Your task to perform on an android device: Go to battery settings Image 0: 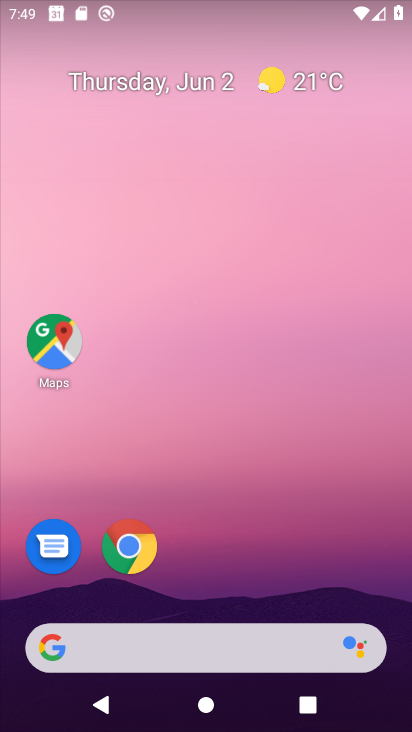
Step 0: drag from (353, 505) to (336, 216)
Your task to perform on an android device: Go to battery settings Image 1: 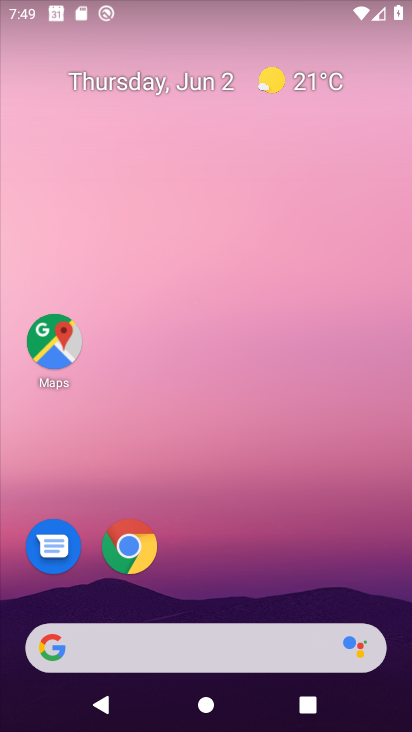
Step 1: drag from (346, 590) to (323, 82)
Your task to perform on an android device: Go to battery settings Image 2: 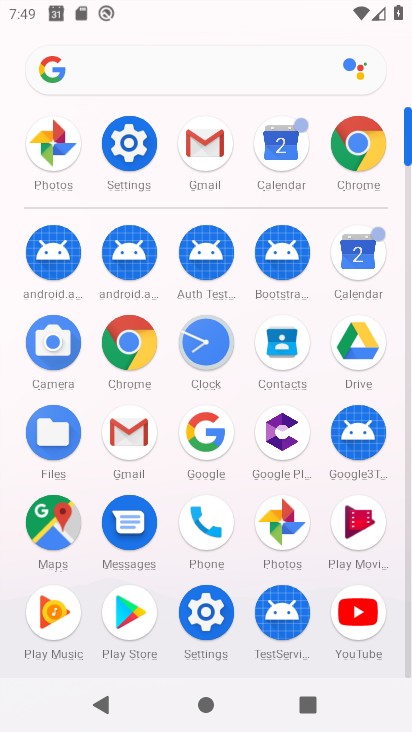
Step 2: click (200, 599)
Your task to perform on an android device: Go to battery settings Image 3: 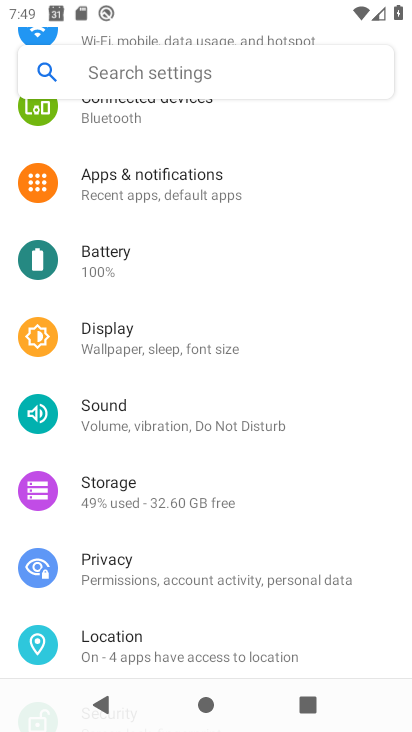
Step 3: click (137, 261)
Your task to perform on an android device: Go to battery settings Image 4: 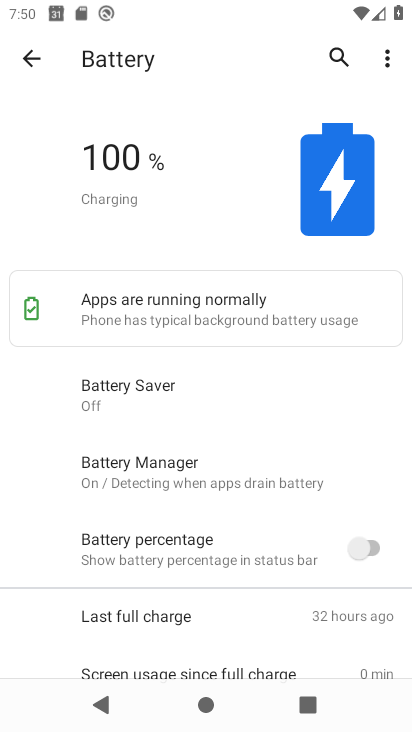
Step 4: task complete